Your task to perform on an android device: Add "dell xps" to the cart on walmart.com Image 0: 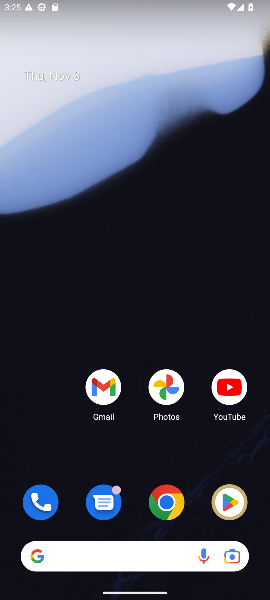
Step 0: drag from (179, 511) to (185, 458)
Your task to perform on an android device: Add "dell xps" to the cart on walmart.com Image 1: 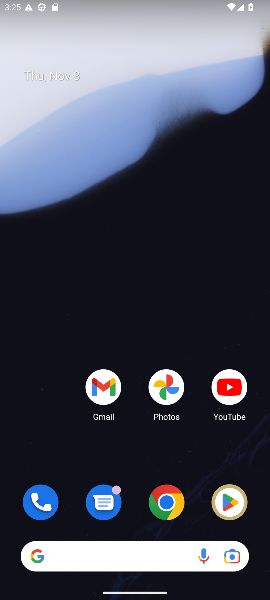
Step 1: drag from (120, 484) to (115, 164)
Your task to perform on an android device: Add "dell xps" to the cart on walmart.com Image 2: 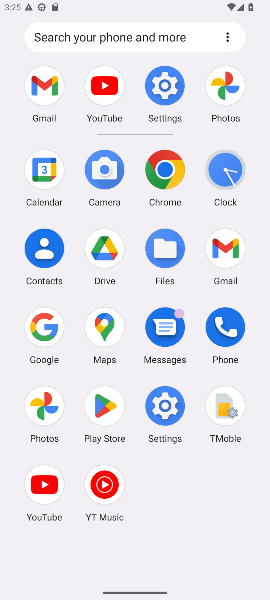
Step 2: click (39, 321)
Your task to perform on an android device: Add "dell xps" to the cart on walmart.com Image 3: 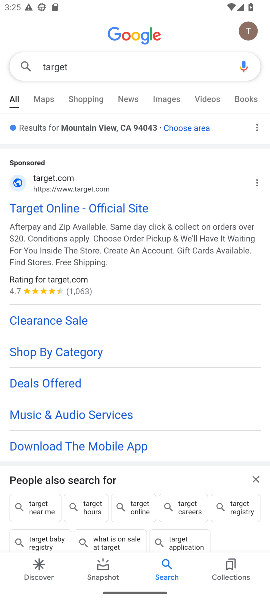
Step 3: click (118, 73)
Your task to perform on an android device: Add "dell xps" to the cart on walmart.com Image 4: 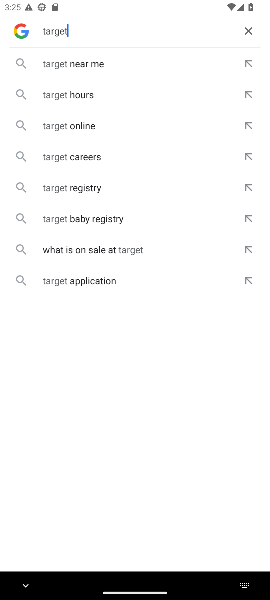
Step 4: click (250, 32)
Your task to perform on an android device: Add "dell xps" to the cart on walmart.com Image 5: 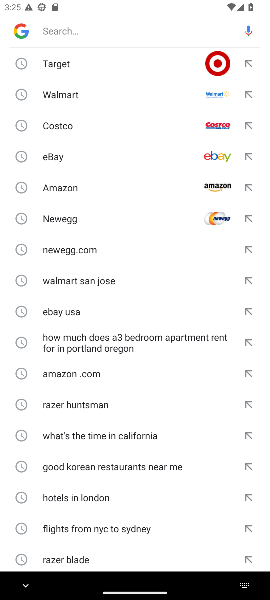
Step 5: type "walmart.com"
Your task to perform on an android device: Add "dell xps" to the cart on walmart.com Image 6: 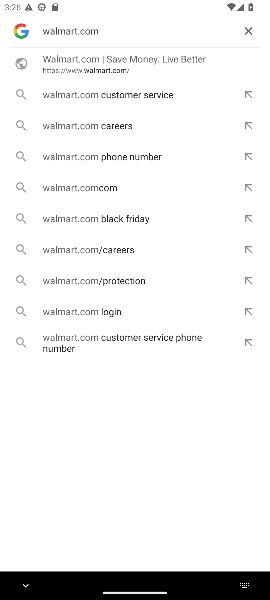
Step 6: click (110, 57)
Your task to perform on an android device: Add "dell xps" to the cart on walmart.com Image 7: 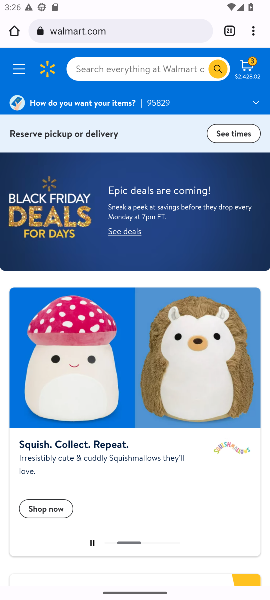
Step 7: click (153, 72)
Your task to perform on an android device: Add "dell xps" to the cart on walmart.com Image 8: 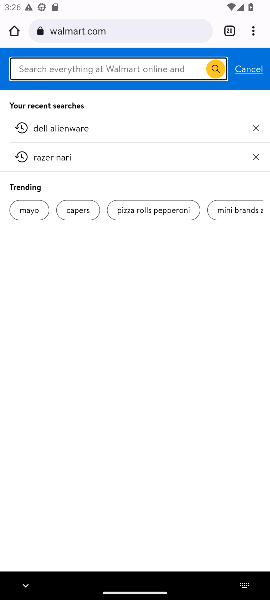
Step 8: type "dell xps"
Your task to perform on an android device: Add "dell xps" to the cart on walmart.com Image 9: 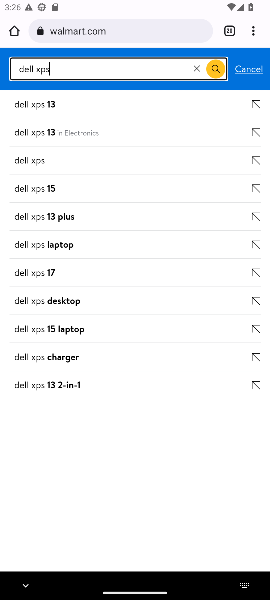
Step 9: click (109, 155)
Your task to perform on an android device: Add "dell xps" to the cart on walmart.com Image 10: 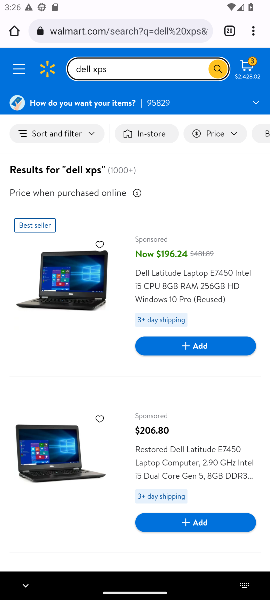
Step 10: click (203, 350)
Your task to perform on an android device: Add "dell xps" to the cart on walmart.com Image 11: 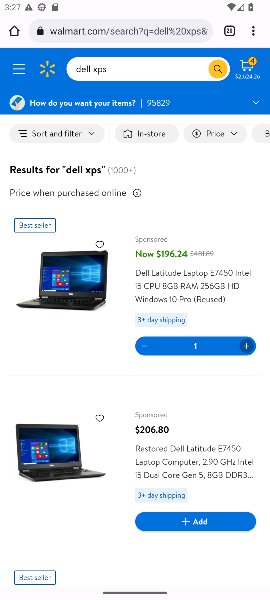
Step 11: task complete